Your task to perform on an android device: Check the weather Image 0: 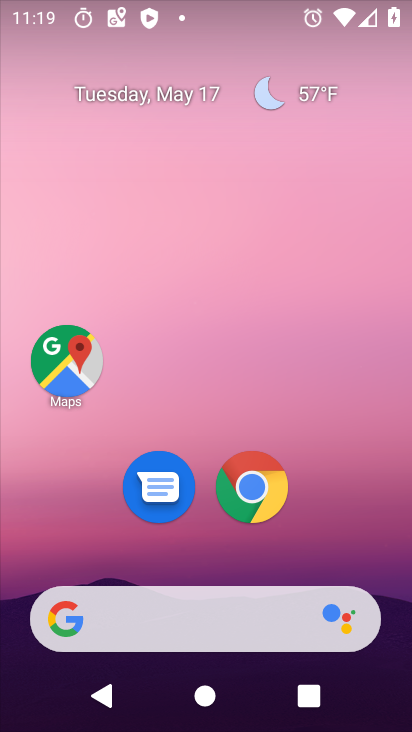
Step 0: click (262, 89)
Your task to perform on an android device: Check the weather Image 1: 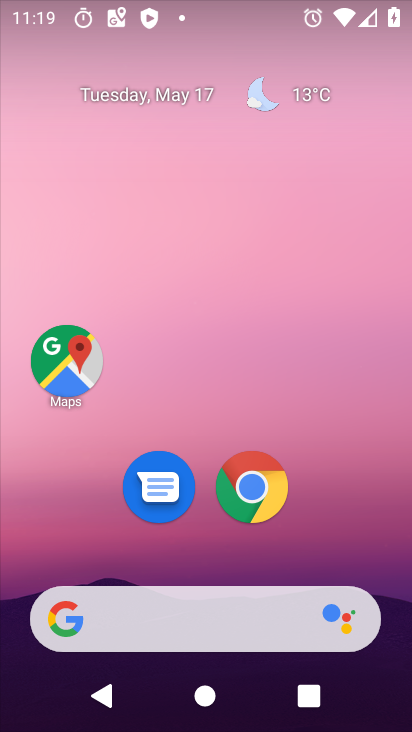
Step 1: click (261, 96)
Your task to perform on an android device: Check the weather Image 2: 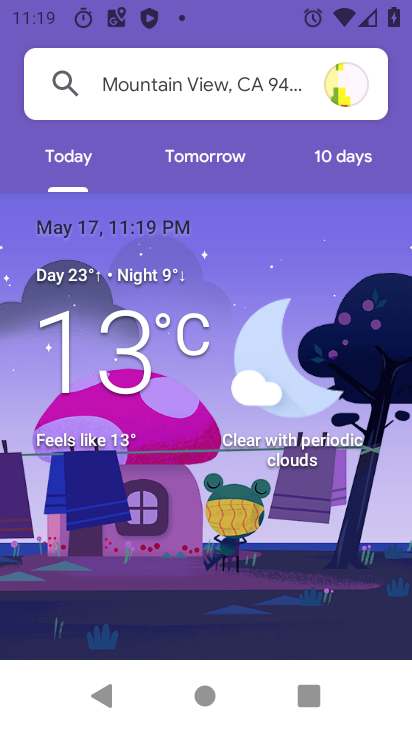
Step 2: task complete